Your task to perform on an android device: Go to display settings Image 0: 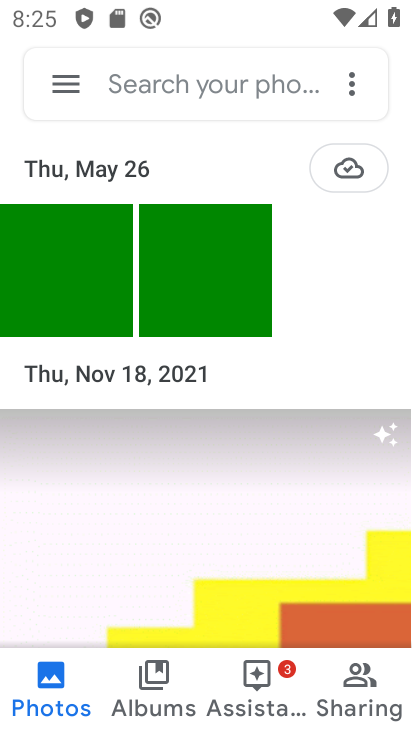
Step 0: press home button
Your task to perform on an android device: Go to display settings Image 1: 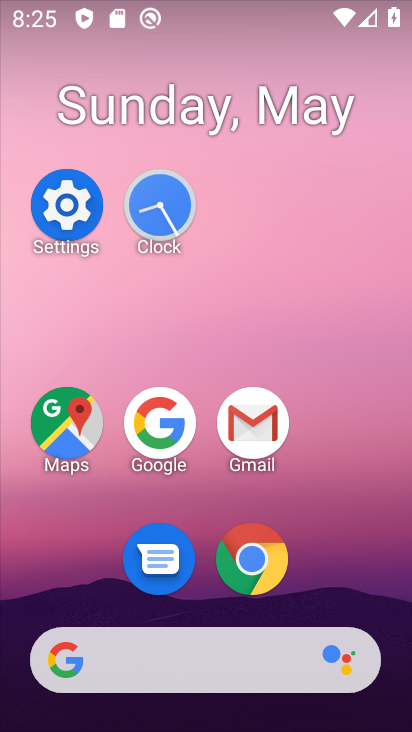
Step 1: click (69, 212)
Your task to perform on an android device: Go to display settings Image 2: 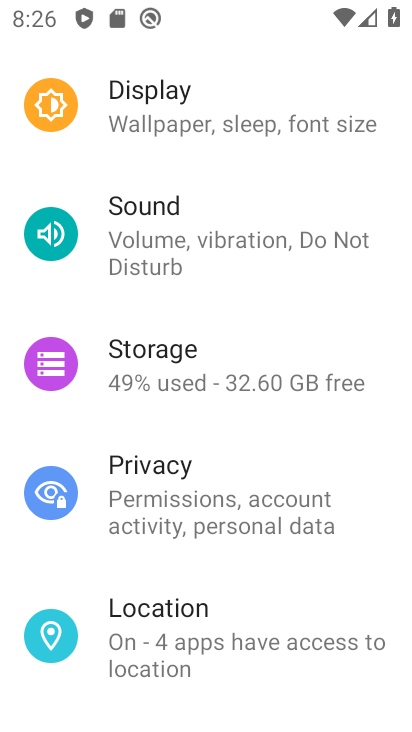
Step 2: click (248, 118)
Your task to perform on an android device: Go to display settings Image 3: 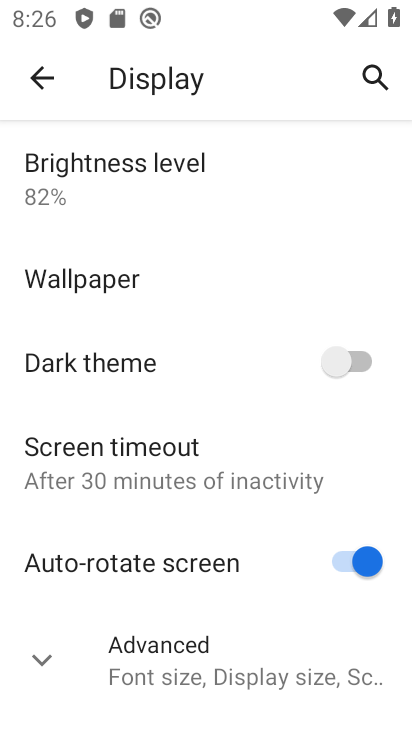
Step 3: task complete